Your task to perform on an android device: check storage Image 0: 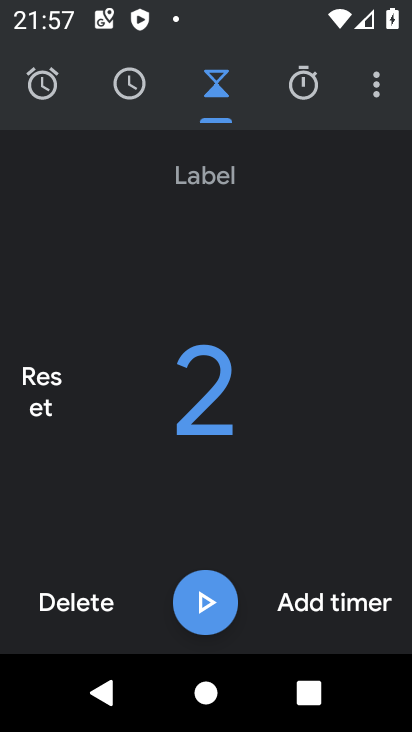
Step 0: drag from (276, 545) to (310, 408)
Your task to perform on an android device: check storage Image 1: 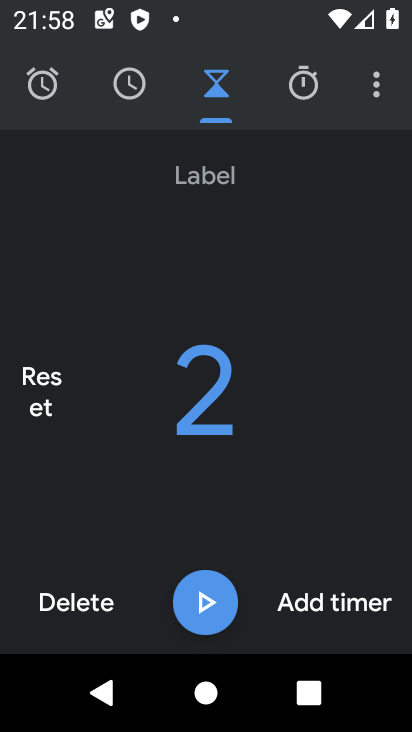
Step 1: press home button
Your task to perform on an android device: check storage Image 2: 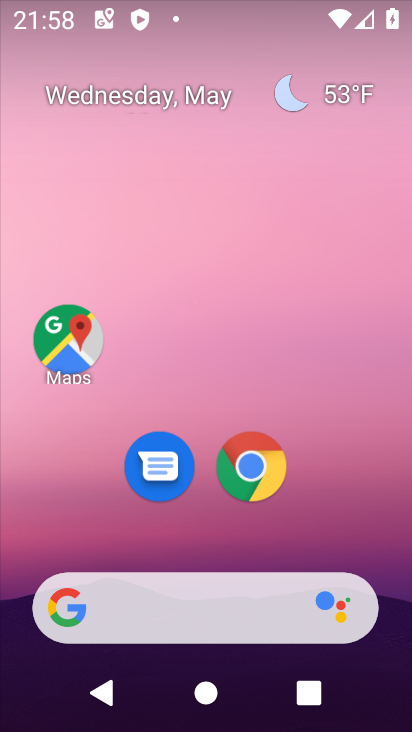
Step 2: drag from (217, 519) to (261, 133)
Your task to perform on an android device: check storage Image 3: 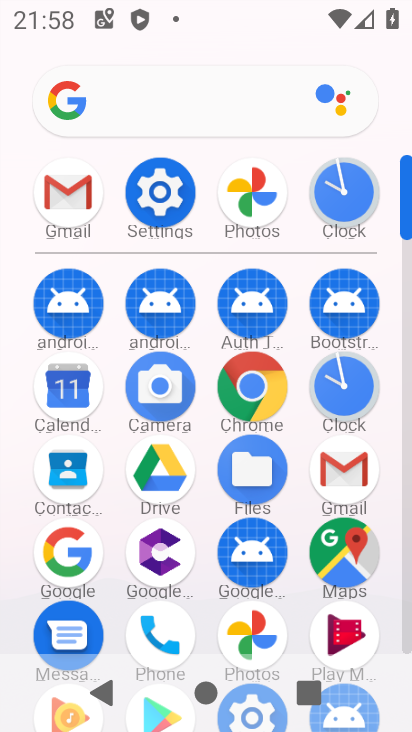
Step 3: drag from (182, 206) to (185, 249)
Your task to perform on an android device: check storage Image 4: 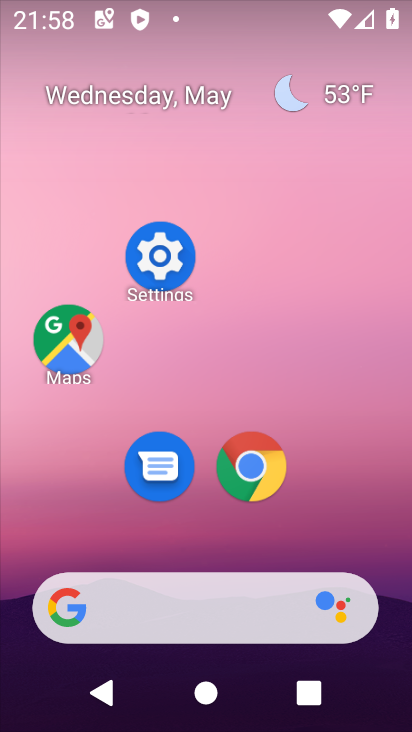
Step 4: click (148, 243)
Your task to perform on an android device: check storage Image 5: 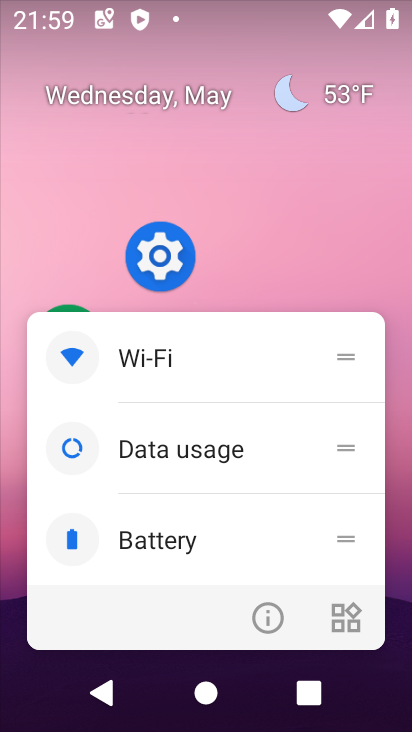
Step 5: click (276, 631)
Your task to perform on an android device: check storage Image 6: 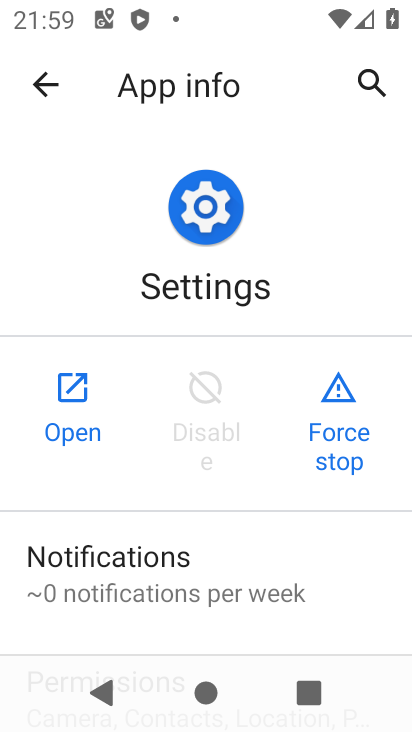
Step 6: click (58, 409)
Your task to perform on an android device: check storage Image 7: 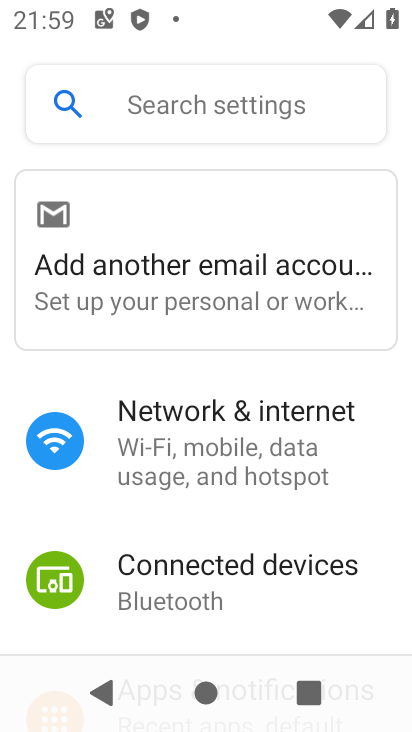
Step 7: drag from (237, 612) to (253, 286)
Your task to perform on an android device: check storage Image 8: 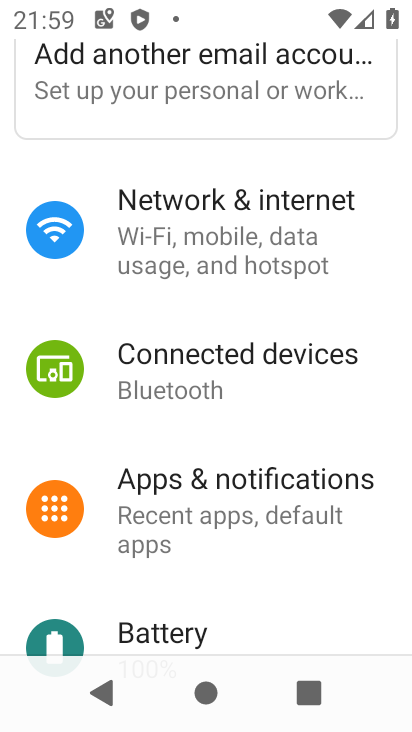
Step 8: drag from (252, 556) to (279, 241)
Your task to perform on an android device: check storage Image 9: 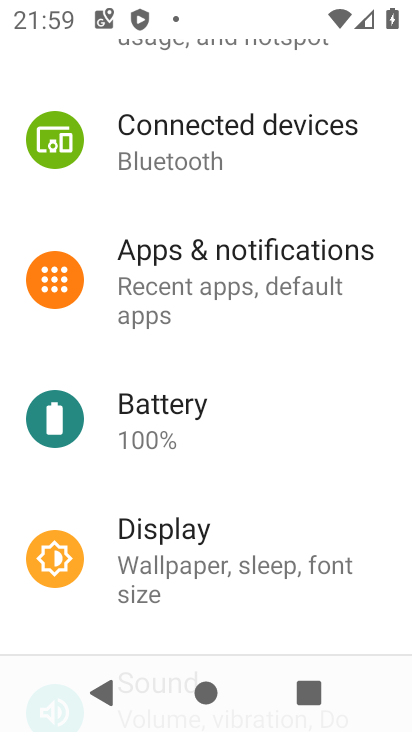
Step 9: drag from (276, 548) to (361, 249)
Your task to perform on an android device: check storage Image 10: 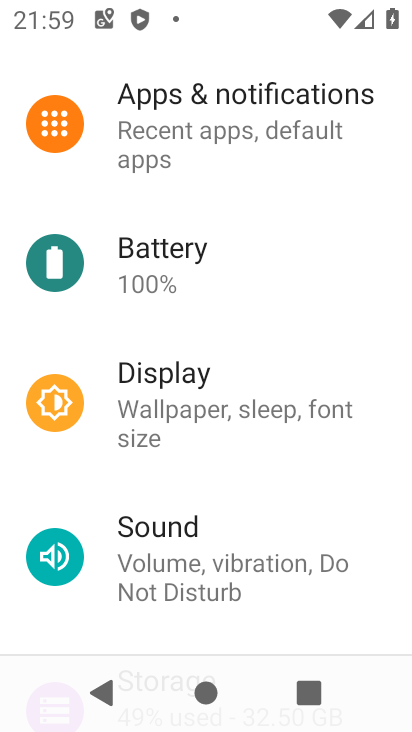
Step 10: drag from (234, 596) to (270, 254)
Your task to perform on an android device: check storage Image 11: 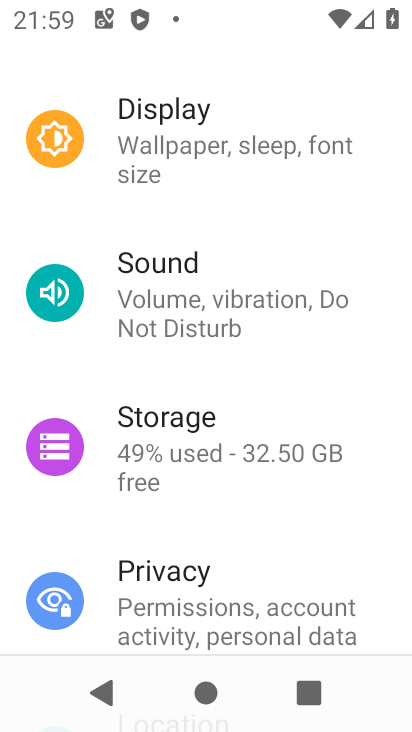
Step 11: click (196, 441)
Your task to perform on an android device: check storage Image 12: 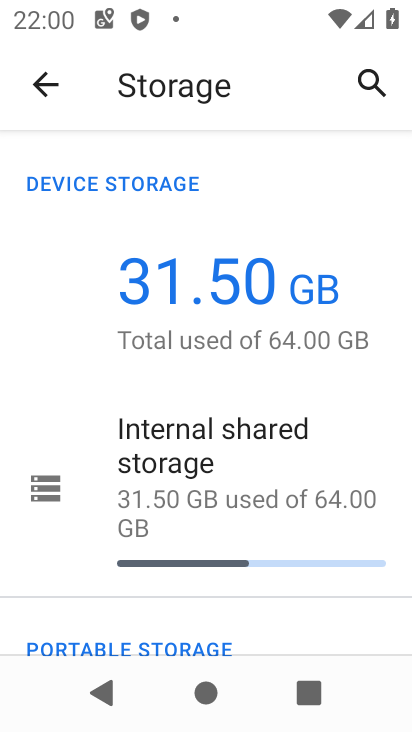
Step 12: task complete